Your task to perform on an android device: Go to Android settings Image 0: 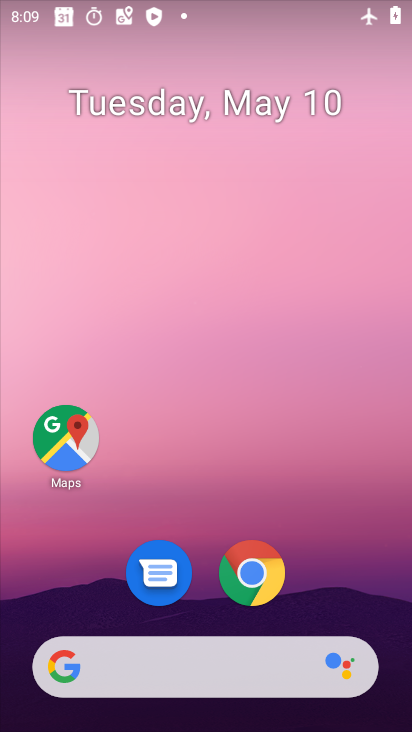
Step 0: drag from (354, 567) to (338, 242)
Your task to perform on an android device: Go to Android settings Image 1: 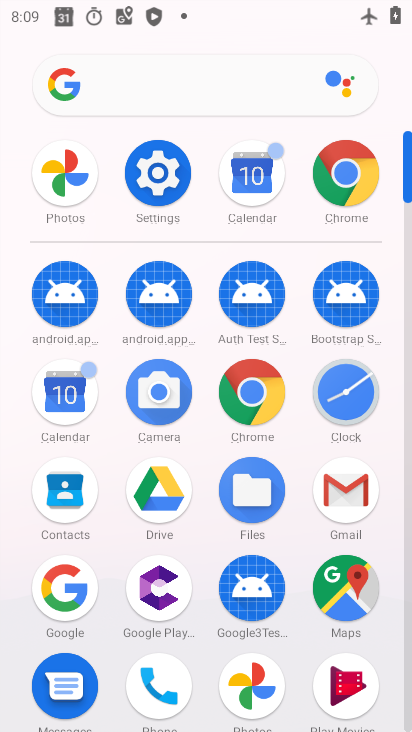
Step 1: click (146, 188)
Your task to perform on an android device: Go to Android settings Image 2: 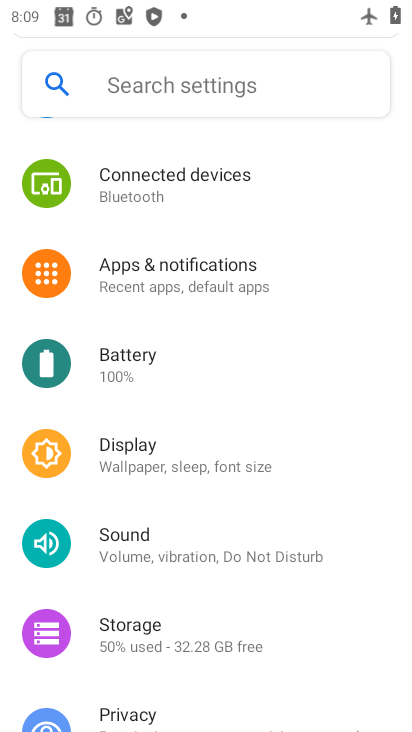
Step 2: drag from (303, 662) to (305, 312)
Your task to perform on an android device: Go to Android settings Image 3: 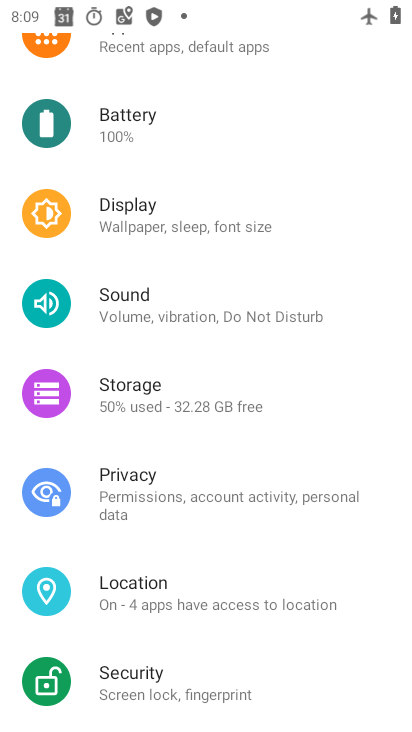
Step 3: drag from (318, 645) to (309, 235)
Your task to perform on an android device: Go to Android settings Image 4: 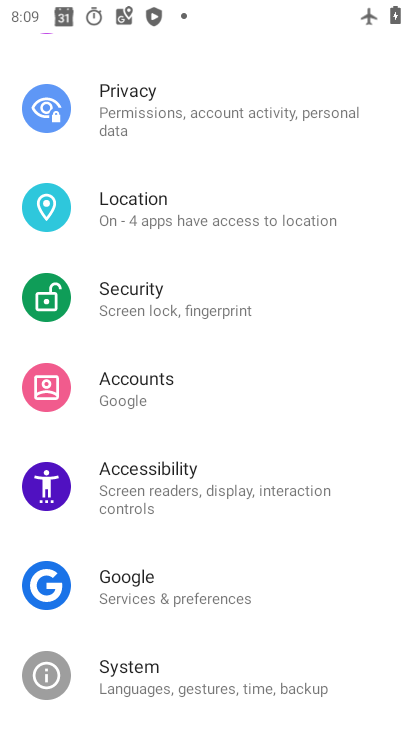
Step 4: drag from (301, 622) to (312, 315)
Your task to perform on an android device: Go to Android settings Image 5: 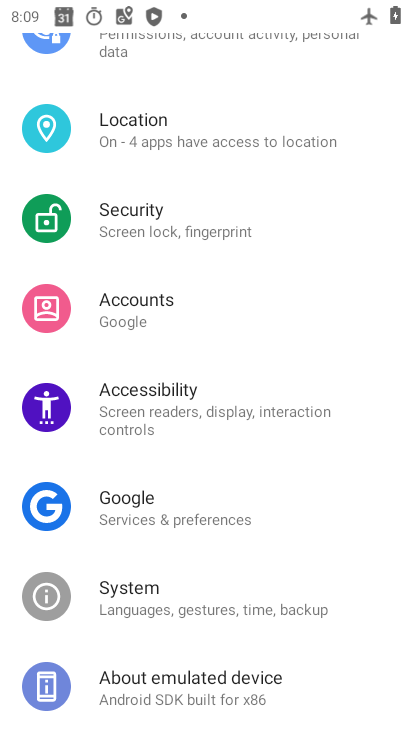
Step 5: click (243, 692)
Your task to perform on an android device: Go to Android settings Image 6: 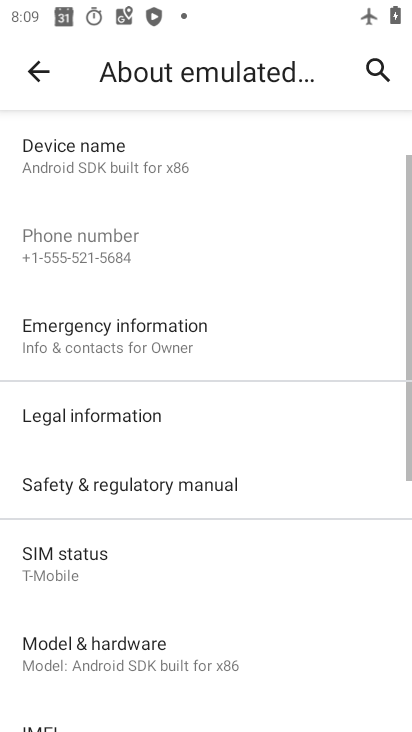
Step 6: drag from (284, 617) to (321, 201)
Your task to perform on an android device: Go to Android settings Image 7: 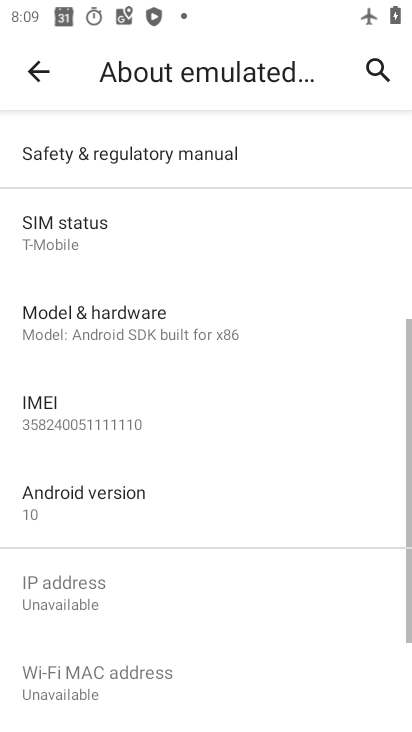
Step 7: drag from (300, 594) to (301, 394)
Your task to perform on an android device: Go to Android settings Image 8: 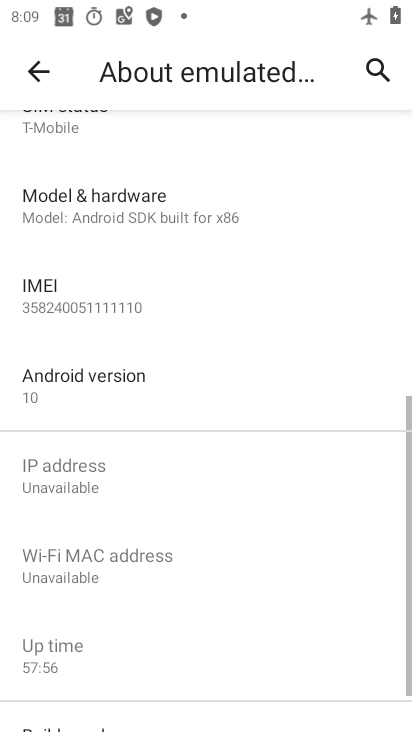
Step 8: drag from (227, 675) to (285, 234)
Your task to perform on an android device: Go to Android settings Image 9: 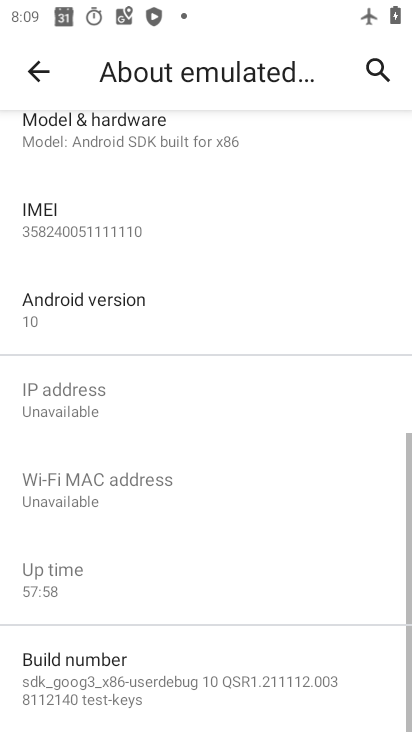
Step 9: click (89, 309)
Your task to perform on an android device: Go to Android settings Image 10: 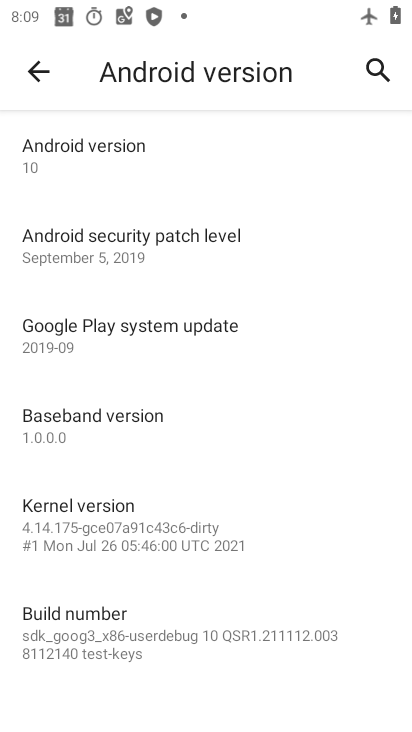
Step 10: task complete